Your task to perform on an android device: turn pop-ups on in chrome Image 0: 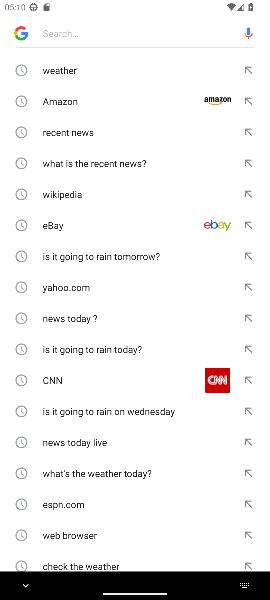
Step 0: press home button
Your task to perform on an android device: turn pop-ups on in chrome Image 1: 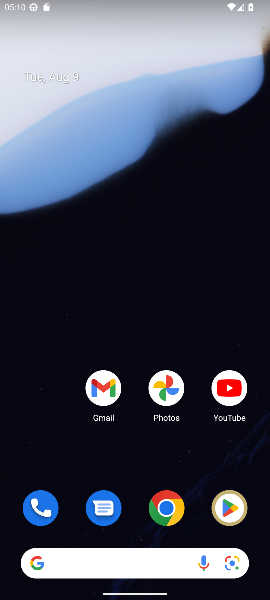
Step 1: click (163, 509)
Your task to perform on an android device: turn pop-ups on in chrome Image 2: 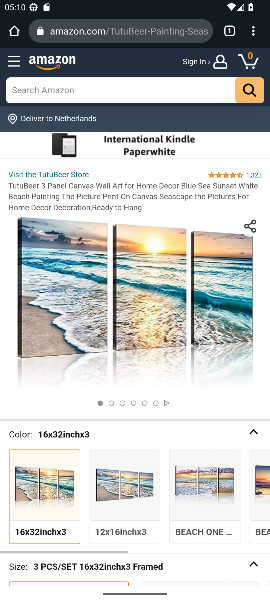
Step 2: click (253, 30)
Your task to perform on an android device: turn pop-ups on in chrome Image 3: 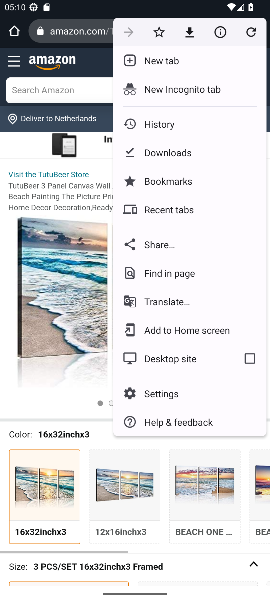
Step 3: click (167, 390)
Your task to perform on an android device: turn pop-ups on in chrome Image 4: 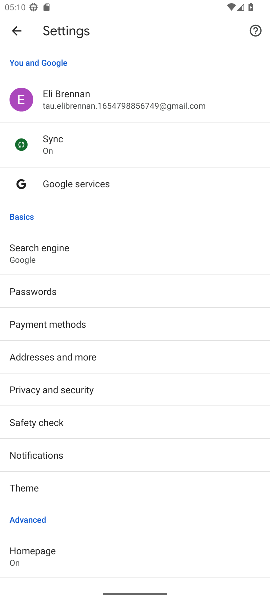
Step 4: drag from (126, 499) to (96, 213)
Your task to perform on an android device: turn pop-ups on in chrome Image 5: 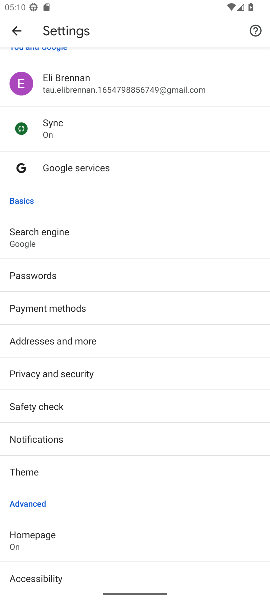
Step 5: drag from (118, 448) to (157, 55)
Your task to perform on an android device: turn pop-ups on in chrome Image 6: 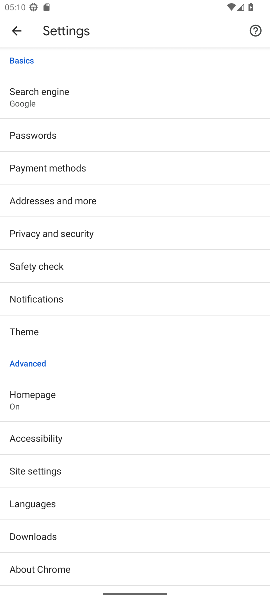
Step 6: click (94, 467)
Your task to perform on an android device: turn pop-ups on in chrome Image 7: 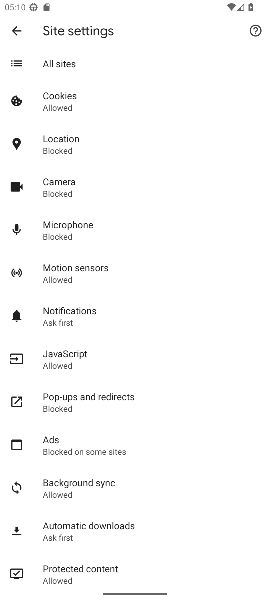
Step 7: click (114, 407)
Your task to perform on an android device: turn pop-ups on in chrome Image 8: 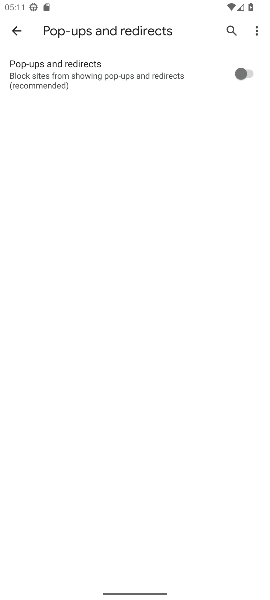
Step 8: click (247, 75)
Your task to perform on an android device: turn pop-ups on in chrome Image 9: 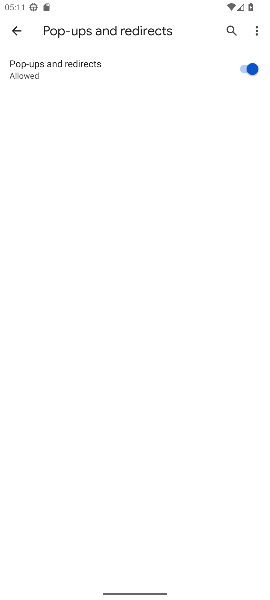
Step 9: task complete